Your task to perform on an android device: Go to internet settings Image 0: 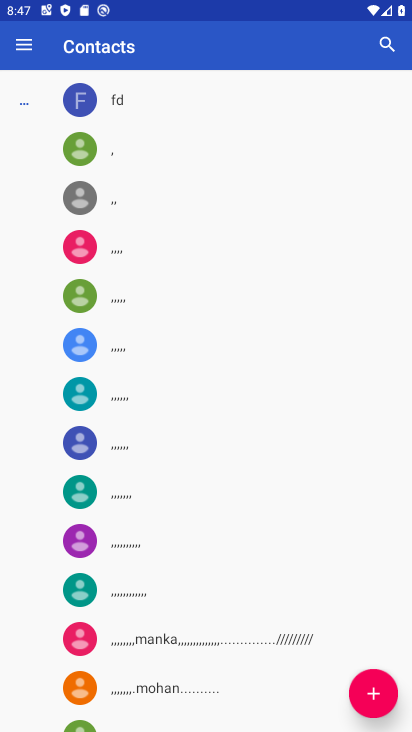
Step 0: press home button
Your task to perform on an android device: Go to internet settings Image 1: 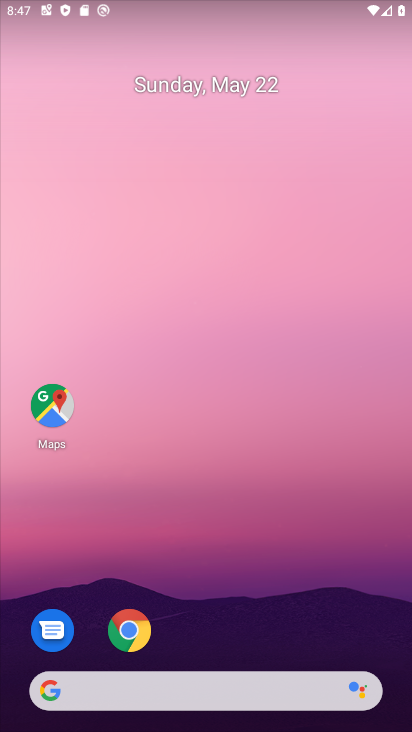
Step 1: drag from (249, 605) to (232, 236)
Your task to perform on an android device: Go to internet settings Image 2: 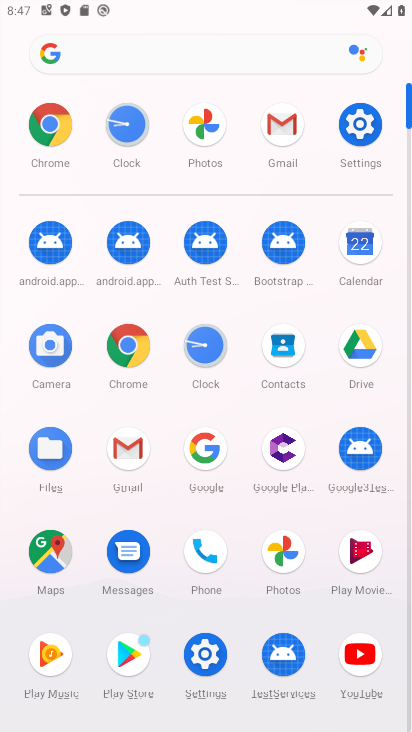
Step 2: click (353, 131)
Your task to perform on an android device: Go to internet settings Image 3: 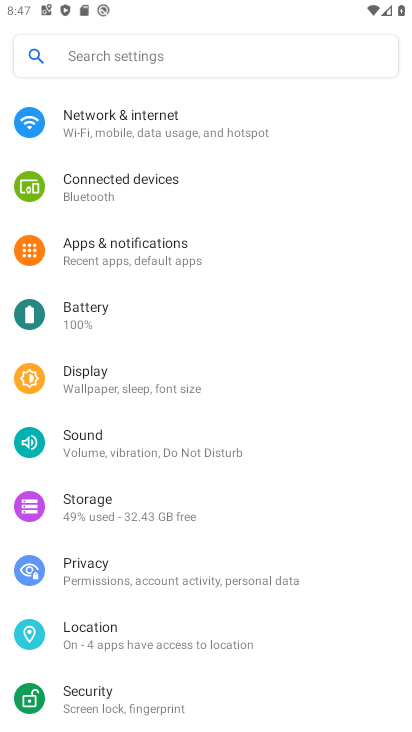
Step 3: click (353, 131)
Your task to perform on an android device: Go to internet settings Image 4: 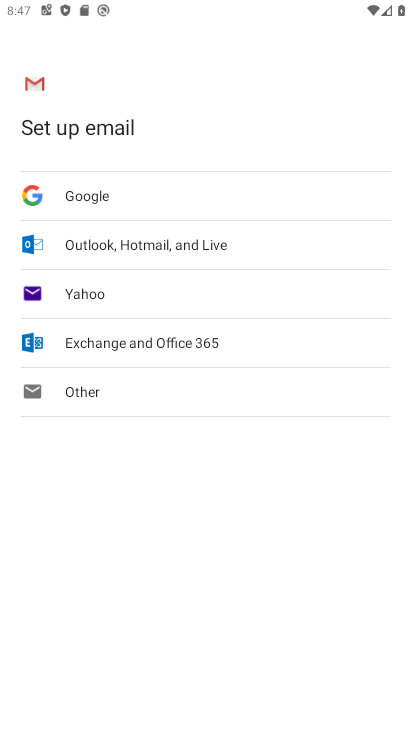
Step 4: press back button
Your task to perform on an android device: Go to internet settings Image 5: 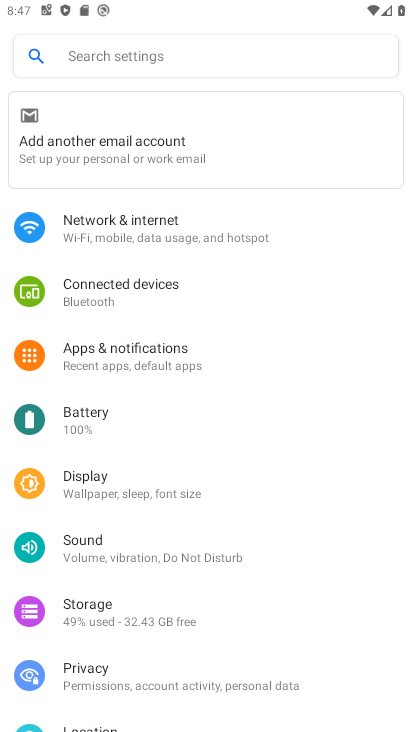
Step 5: click (230, 228)
Your task to perform on an android device: Go to internet settings Image 6: 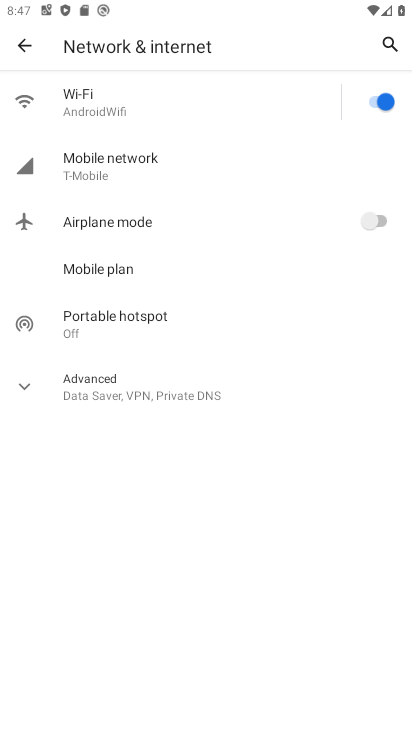
Step 6: task complete